Your task to perform on an android device: Search for cool wooden wall art on Etsy. Image 0: 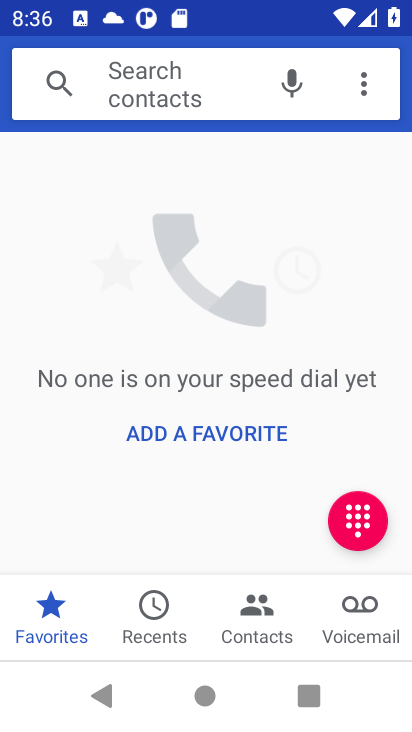
Step 0: press home button
Your task to perform on an android device: Search for cool wooden wall art on Etsy. Image 1: 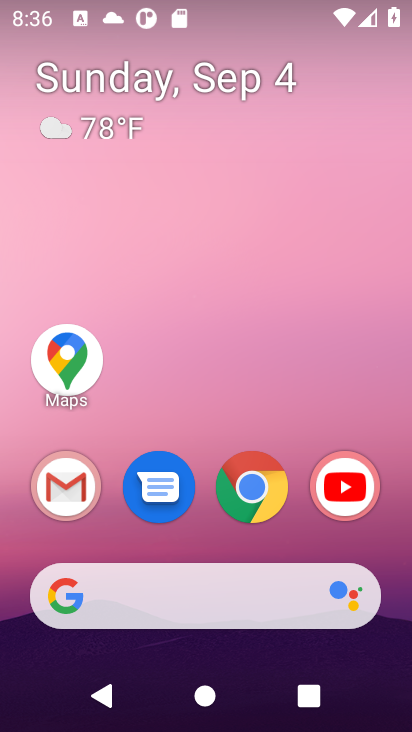
Step 1: click (182, 593)
Your task to perform on an android device: Search for cool wooden wall art on Etsy. Image 2: 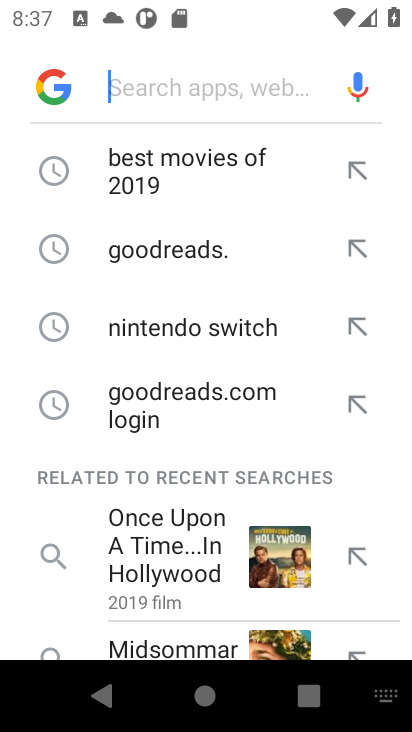
Step 2: type "etsy.com"
Your task to perform on an android device: Search for cool wooden wall art on Etsy. Image 3: 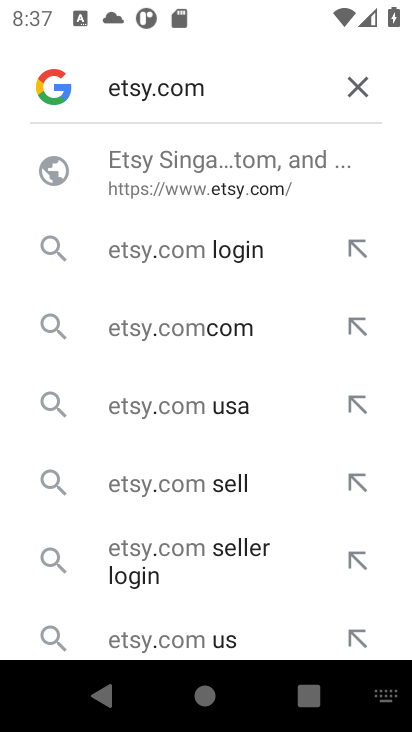
Step 3: click (221, 148)
Your task to perform on an android device: Search for cool wooden wall art on Etsy. Image 4: 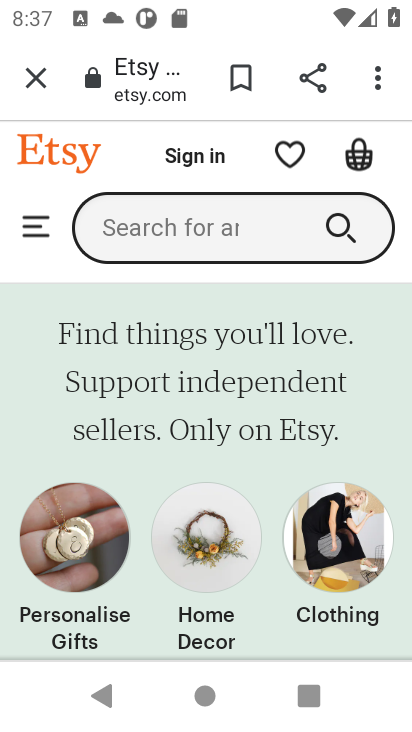
Step 4: click (217, 206)
Your task to perform on an android device: Search for cool wooden wall art on Etsy. Image 5: 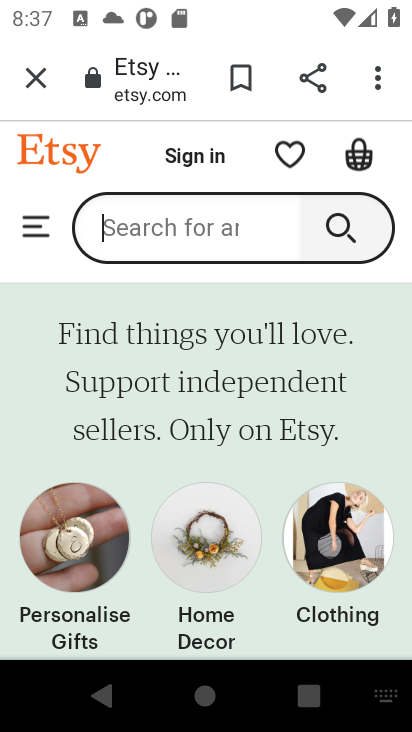
Step 5: type "cool wooden wall art"
Your task to perform on an android device: Search for cool wooden wall art on Etsy. Image 6: 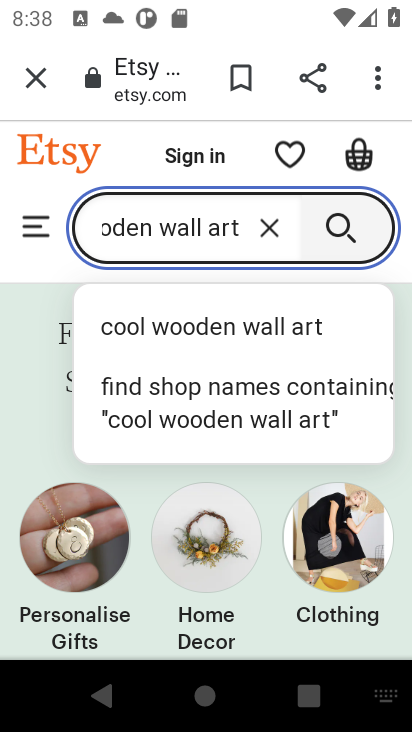
Step 6: click (235, 324)
Your task to perform on an android device: Search for cool wooden wall art on Etsy. Image 7: 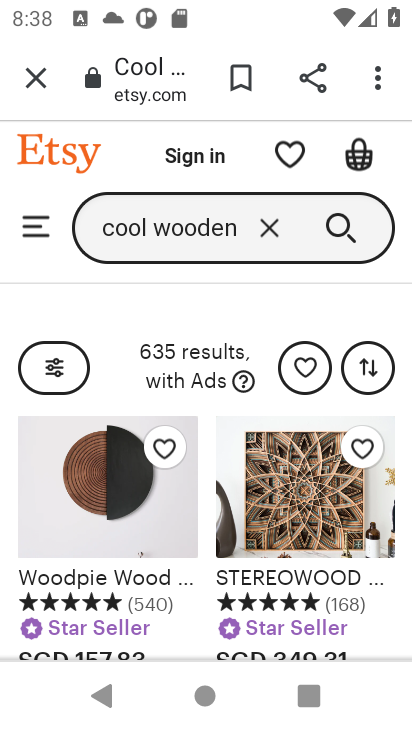
Step 7: task complete